Your task to perform on an android device: add a contact Image 0: 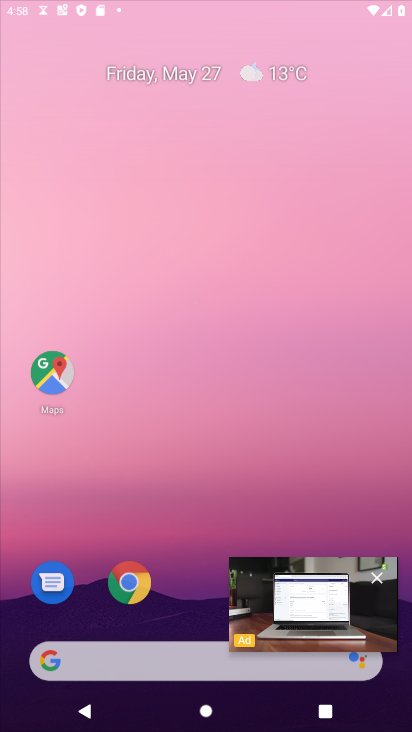
Step 0: click (292, 403)
Your task to perform on an android device: add a contact Image 1: 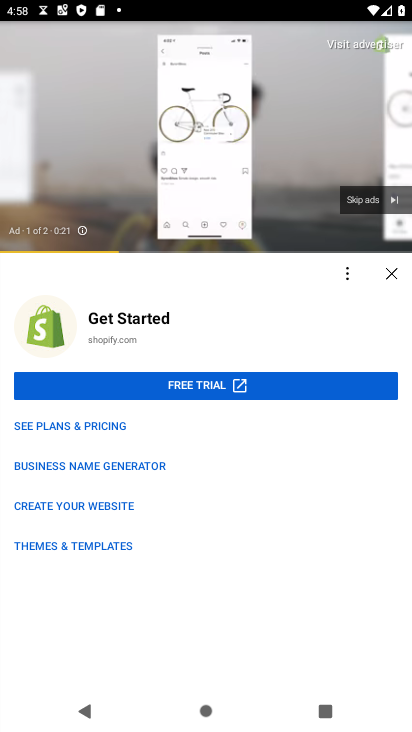
Step 1: click (179, 144)
Your task to perform on an android device: add a contact Image 2: 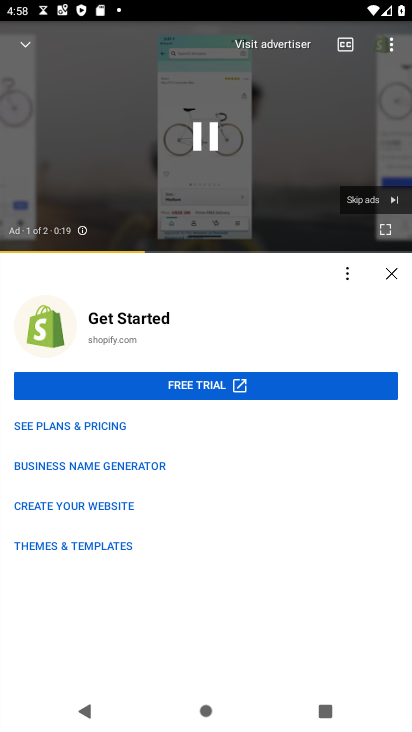
Step 2: click (190, 131)
Your task to perform on an android device: add a contact Image 3: 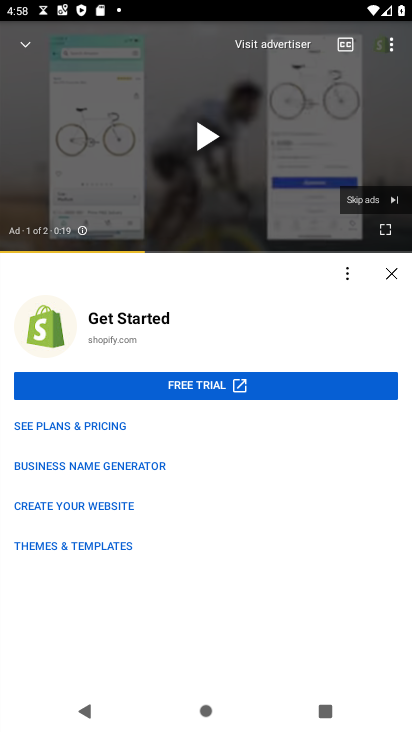
Step 3: press home button
Your task to perform on an android device: add a contact Image 4: 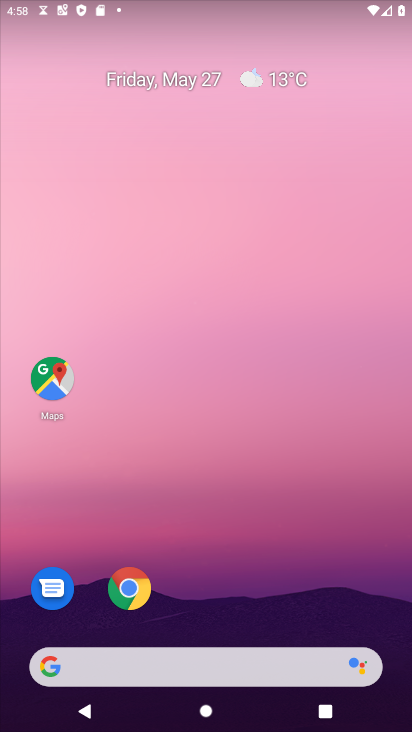
Step 4: drag from (213, 603) to (267, 94)
Your task to perform on an android device: add a contact Image 5: 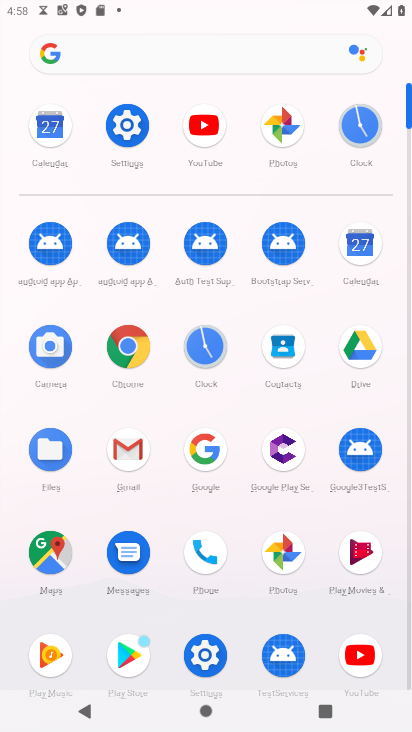
Step 5: click (274, 342)
Your task to perform on an android device: add a contact Image 6: 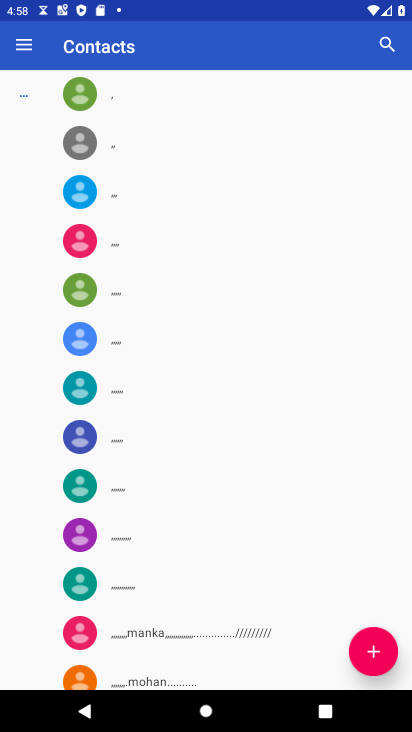
Step 6: click (375, 645)
Your task to perform on an android device: add a contact Image 7: 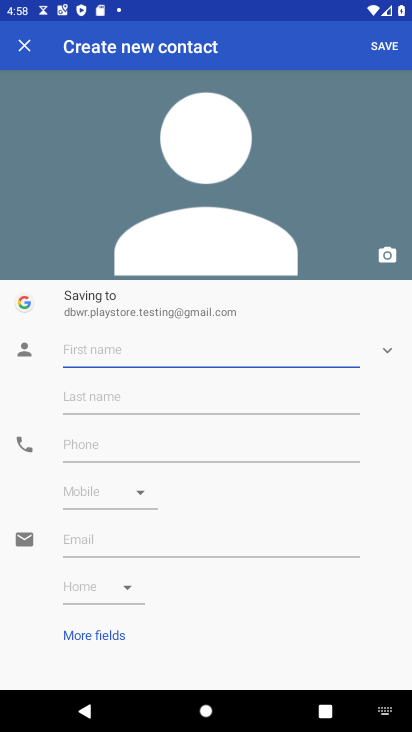
Step 7: type "gdghd"
Your task to perform on an android device: add a contact Image 8: 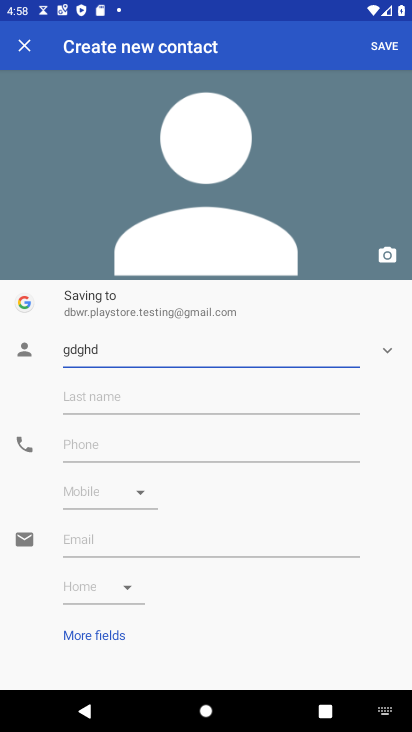
Step 8: click (95, 445)
Your task to perform on an android device: add a contact Image 9: 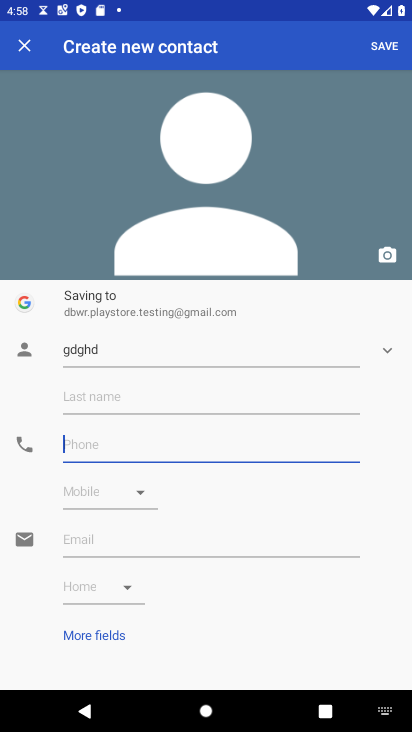
Step 9: type "67676"
Your task to perform on an android device: add a contact Image 10: 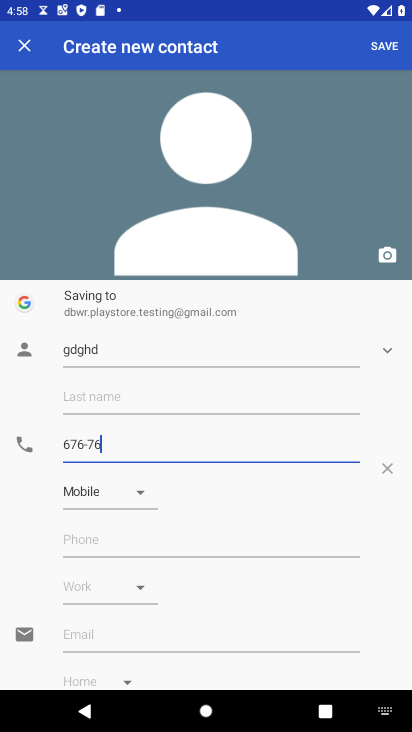
Step 10: click (378, 46)
Your task to perform on an android device: add a contact Image 11: 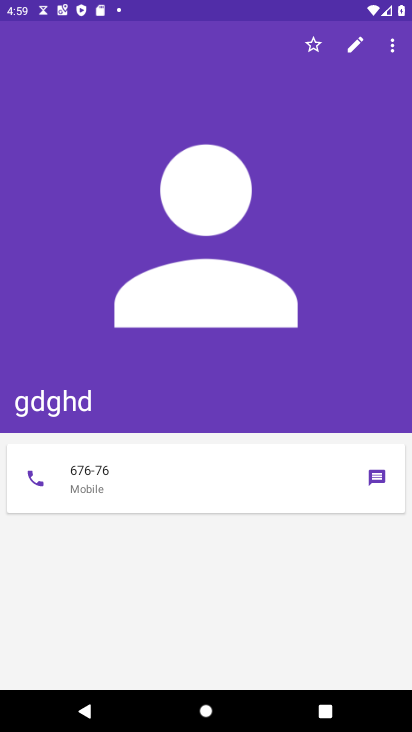
Step 11: task complete